Your task to perform on an android device: Open the phone app and click the voicemail tab. Image 0: 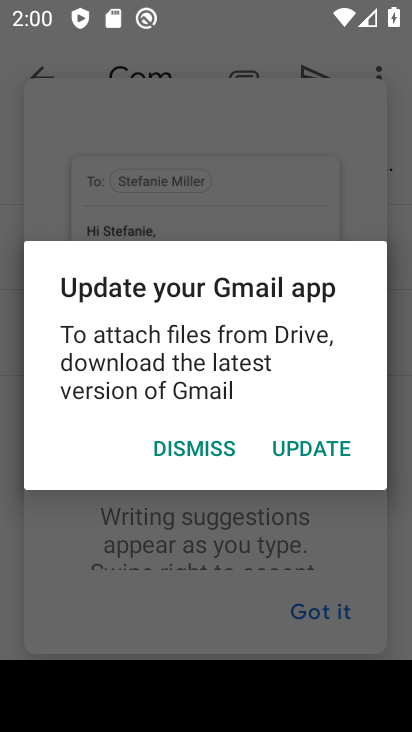
Step 0: press home button
Your task to perform on an android device: Open the phone app and click the voicemail tab. Image 1: 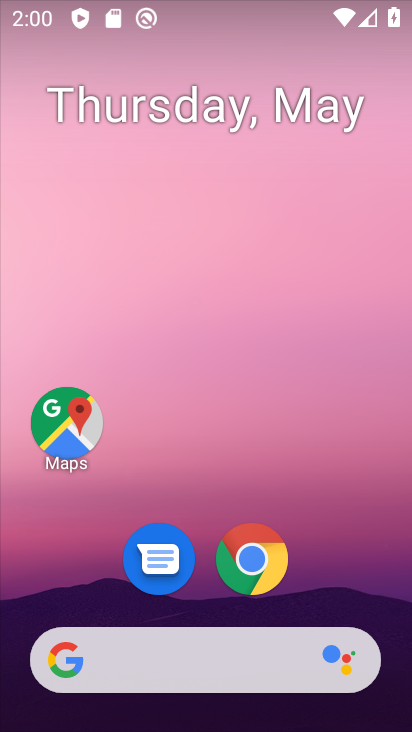
Step 1: drag from (194, 604) to (189, 258)
Your task to perform on an android device: Open the phone app and click the voicemail tab. Image 2: 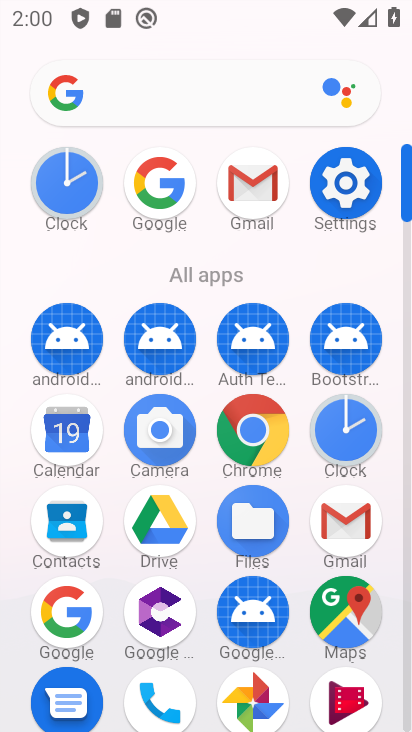
Step 2: click (142, 708)
Your task to perform on an android device: Open the phone app and click the voicemail tab. Image 3: 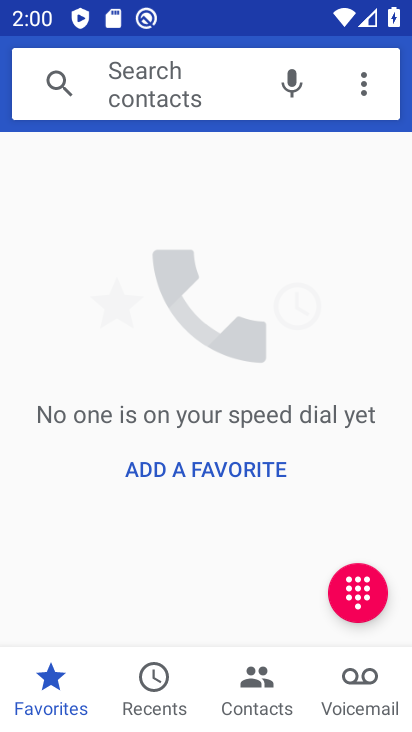
Step 3: click (335, 693)
Your task to perform on an android device: Open the phone app and click the voicemail tab. Image 4: 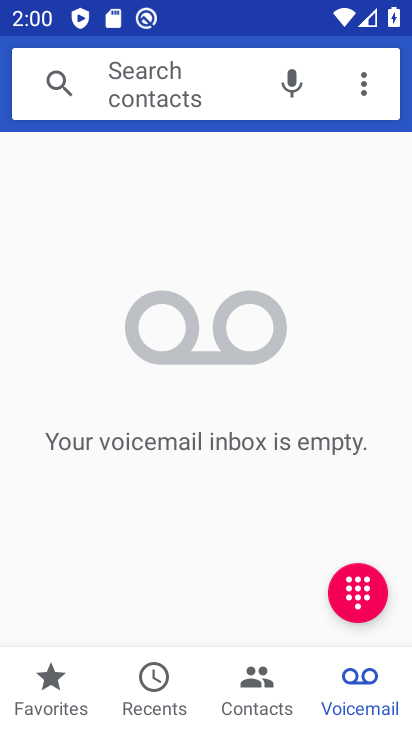
Step 4: task complete